Your task to perform on an android device: Open Youtube and go to the subscriptions tab Image 0: 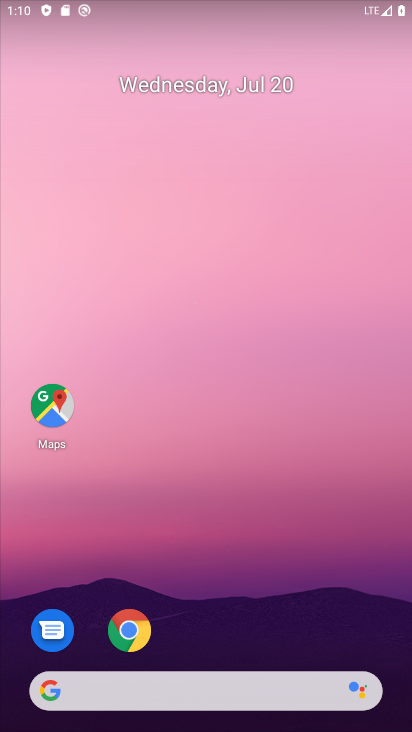
Step 0: drag from (224, 530) to (195, 142)
Your task to perform on an android device: Open Youtube and go to the subscriptions tab Image 1: 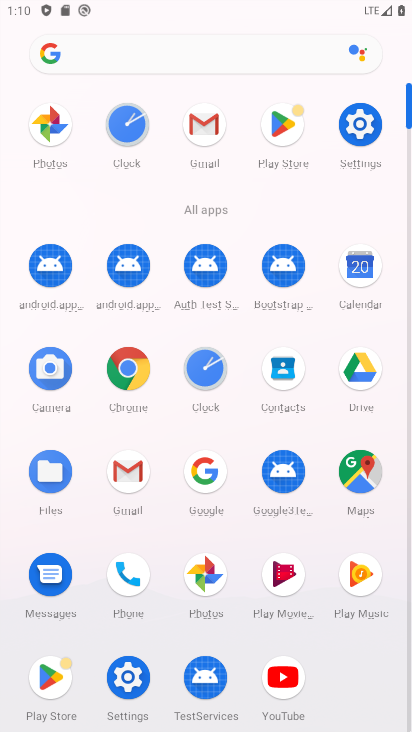
Step 1: click (273, 681)
Your task to perform on an android device: Open Youtube and go to the subscriptions tab Image 2: 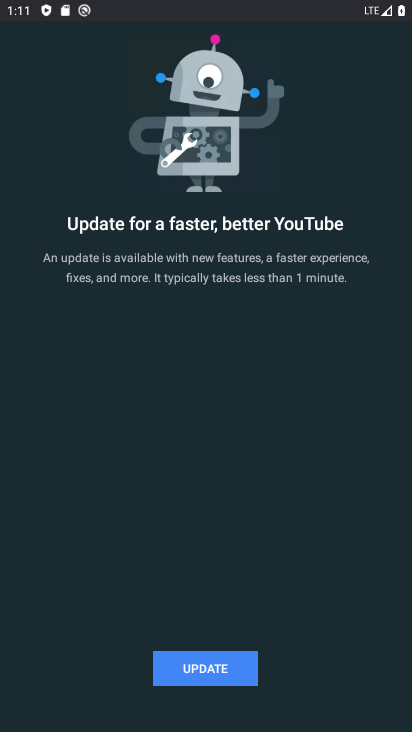
Step 2: click (216, 660)
Your task to perform on an android device: Open Youtube and go to the subscriptions tab Image 3: 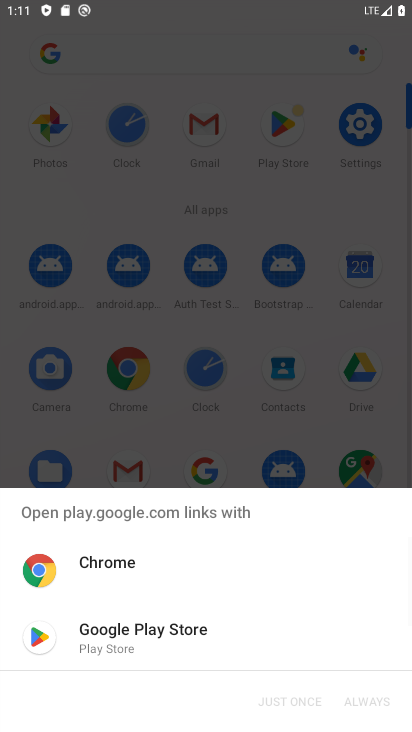
Step 3: click (153, 642)
Your task to perform on an android device: Open Youtube and go to the subscriptions tab Image 4: 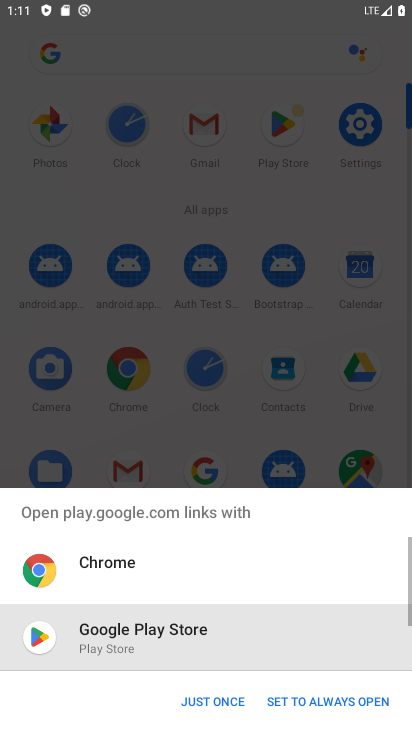
Step 4: click (193, 697)
Your task to perform on an android device: Open Youtube and go to the subscriptions tab Image 5: 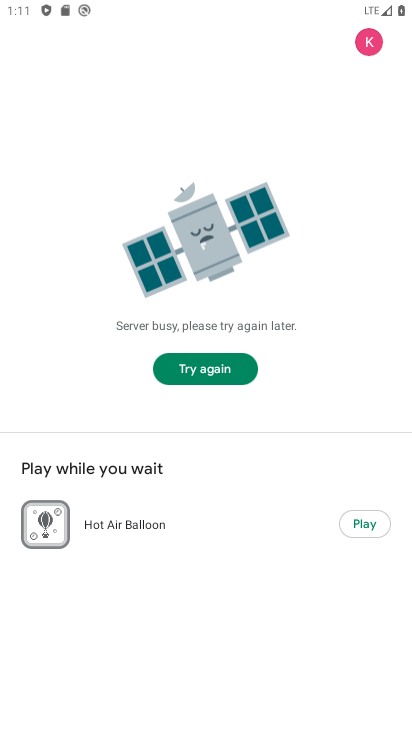
Step 5: task complete